Your task to perform on an android device: Open location settings Image 0: 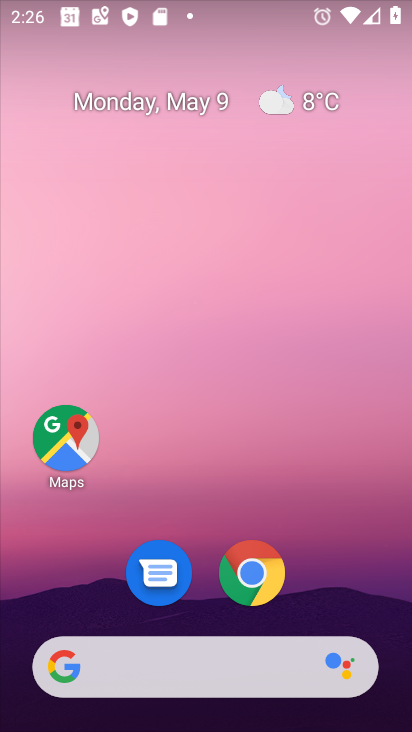
Step 0: press home button
Your task to perform on an android device: Open location settings Image 1: 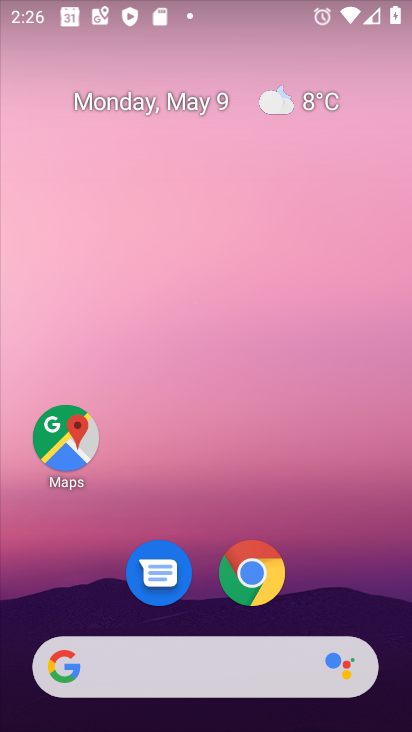
Step 1: drag from (156, 663) to (319, 35)
Your task to perform on an android device: Open location settings Image 2: 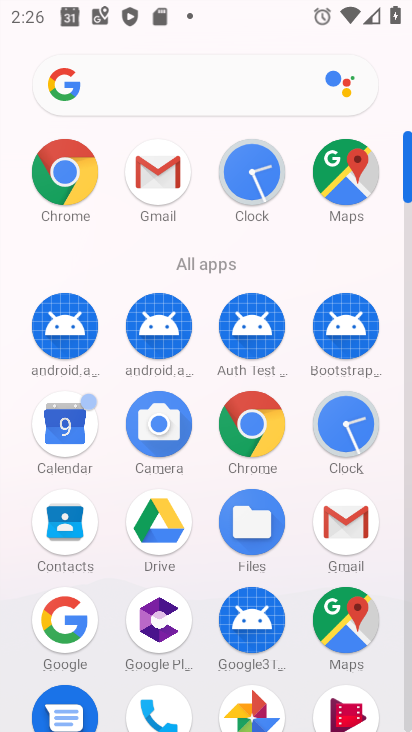
Step 2: drag from (191, 660) to (350, 253)
Your task to perform on an android device: Open location settings Image 3: 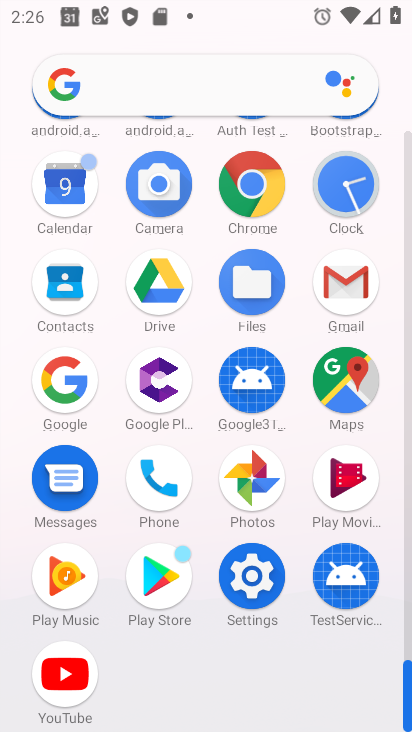
Step 3: click (253, 575)
Your task to perform on an android device: Open location settings Image 4: 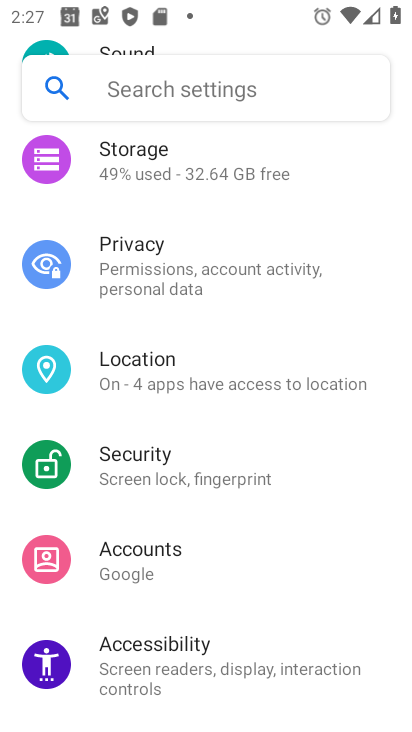
Step 4: click (153, 358)
Your task to perform on an android device: Open location settings Image 5: 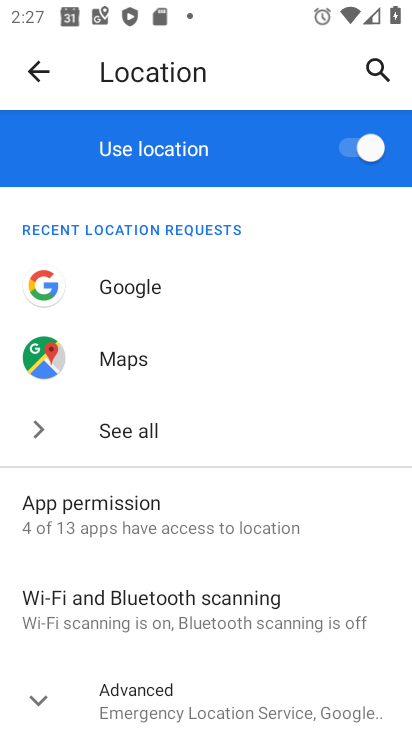
Step 5: task complete